Your task to perform on an android device: Open settings on Google Maps Image 0: 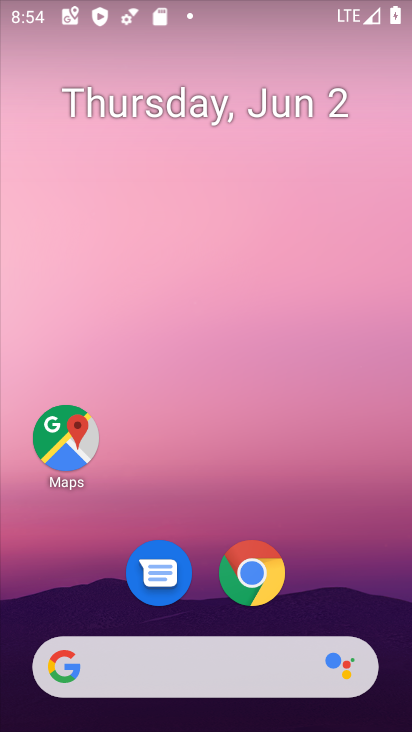
Step 0: press home button
Your task to perform on an android device: Open settings on Google Maps Image 1: 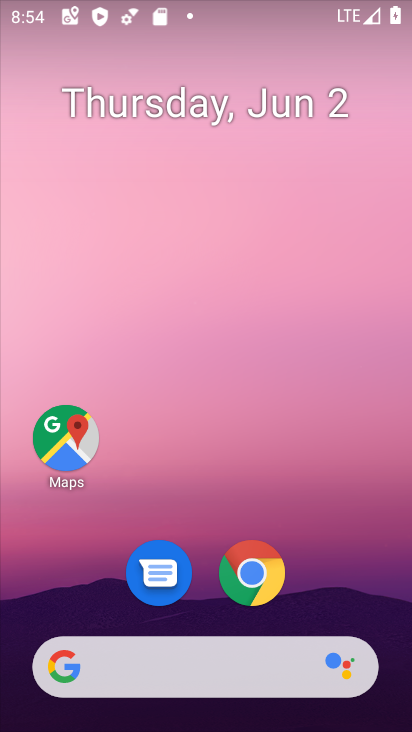
Step 1: click (235, 581)
Your task to perform on an android device: Open settings on Google Maps Image 2: 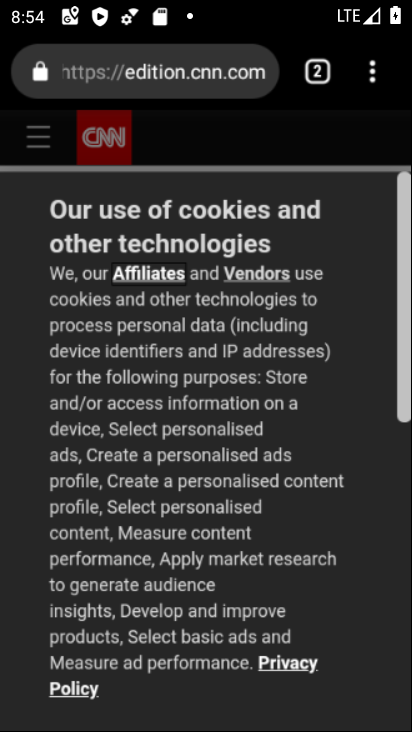
Step 2: task complete